Your task to perform on an android device: find snoozed emails in the gmail app Image 0: 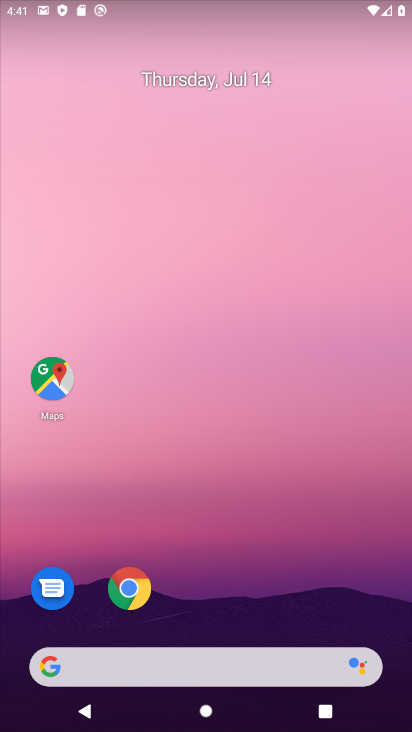
Step 0: drag from (218, 589) to (251, 210)
Your task to perform on an android device: find snoozed emails in the gmail app Image 1: 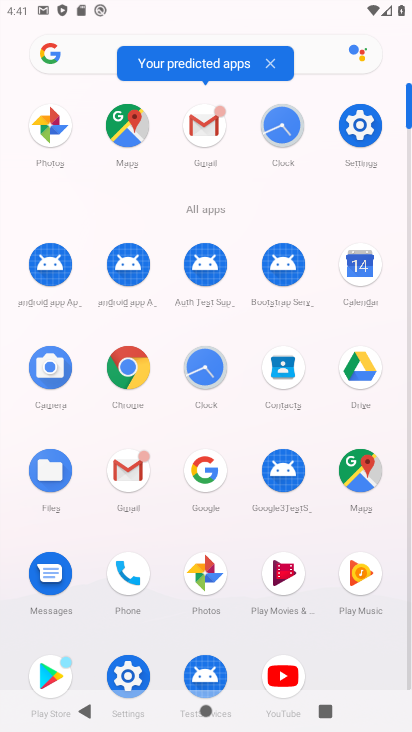
Step 1: click (149, 468)
Your task to perform on an android device: find snoozed emails in the gmail app Image 2: 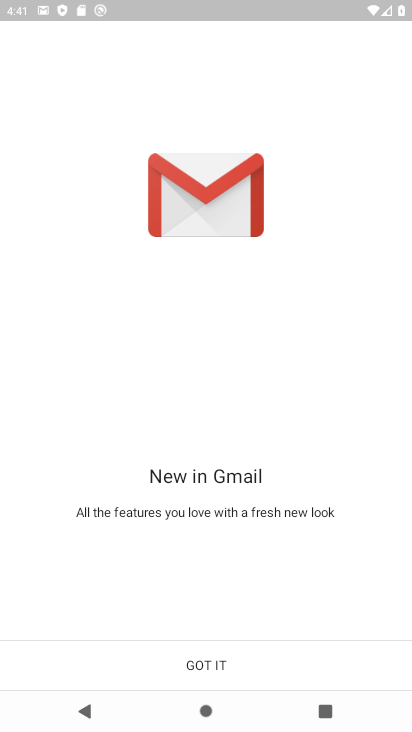
Step 2: click (209, 661)
Your task to perform on an android device: find snoozed emails in the gmail app Image 3: 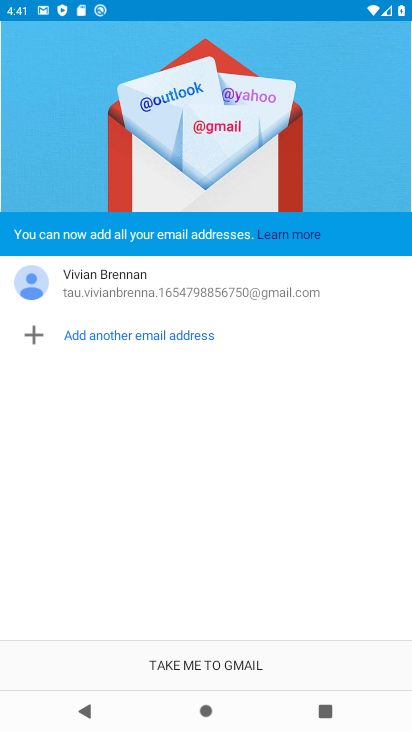
Step 3: click (209, 661)
Your task to perform on an android device: find snoozed emails in the gmail app Image 4: 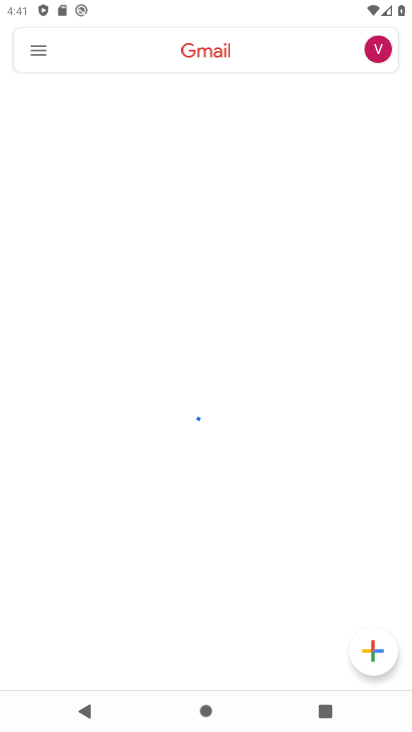
Step 4: click (39, 51)
Your task to perform on an android device: find snoozed emails in the gmail app Image 5: 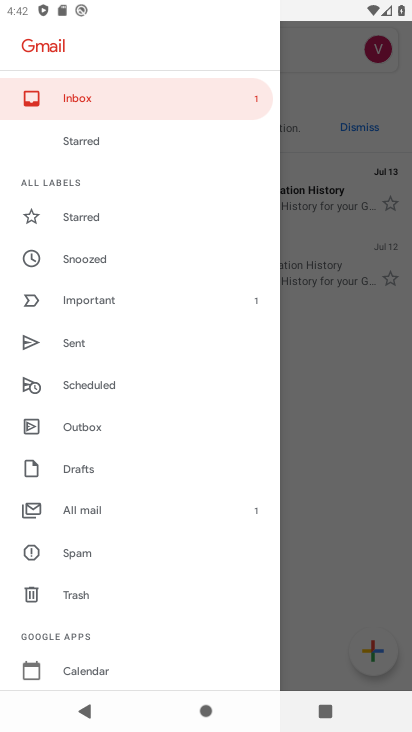
Step 5: click (101, 258)
Your task to perform on an android device: find snoozed emails in the gmail app Image 6: 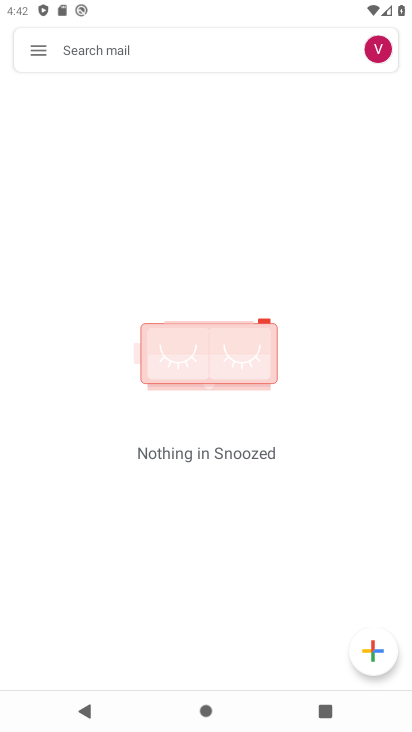
Step 6: task complete